Your task to perform on an android device: Play the last video I watched on Youtube Image 0: 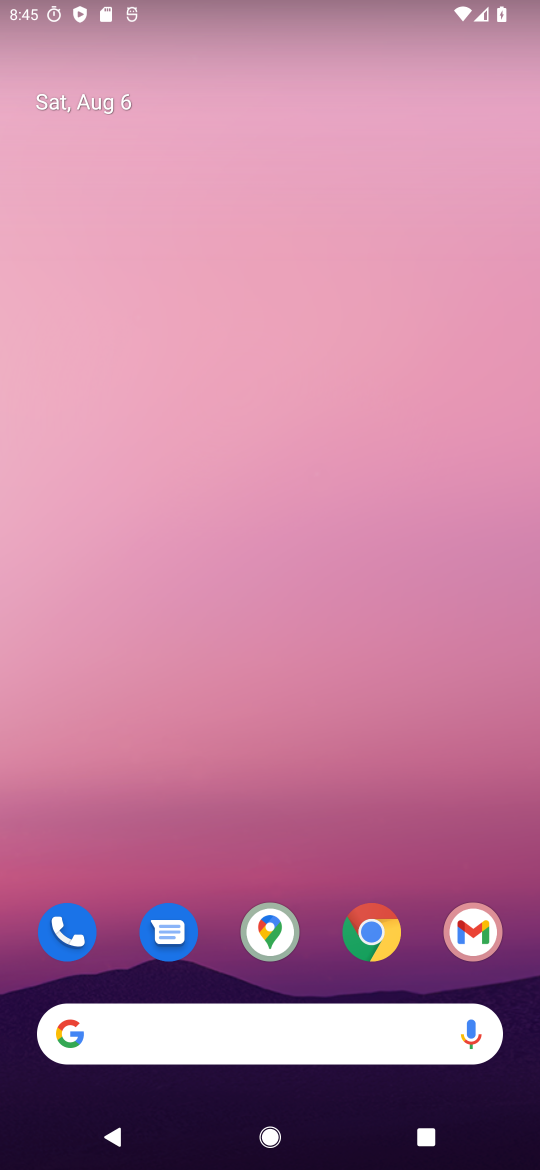
Step 0: drag from (262, 1002) to (506, 264)
Your task to perform on an android device: Play the last video I watched on Youtube Image 1: 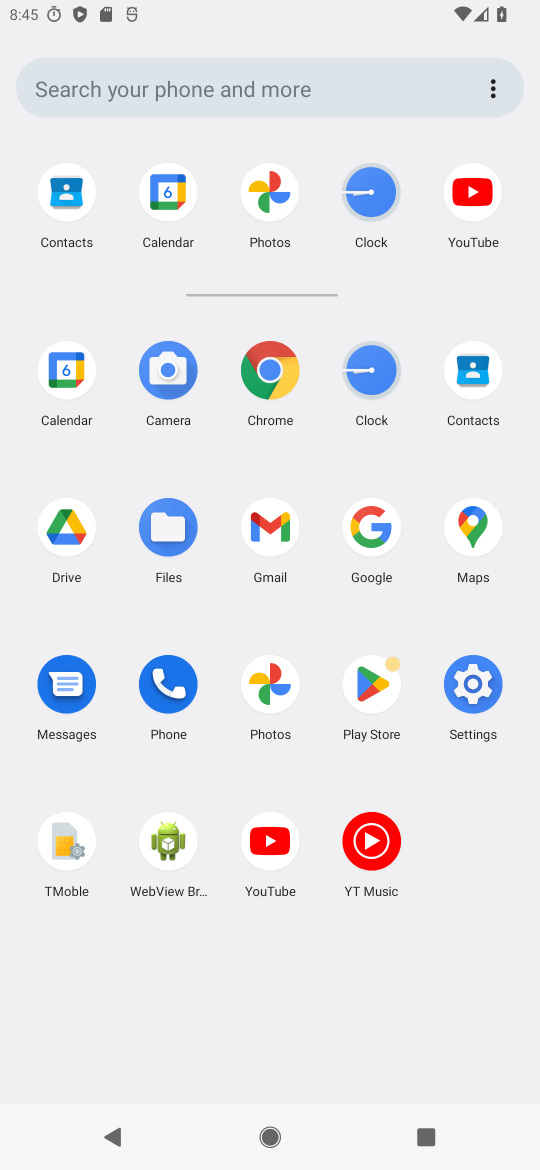
Step 1: click (274, 839)
Your task to perform on an android device: Play the last video I watched on Youtube Image 2: 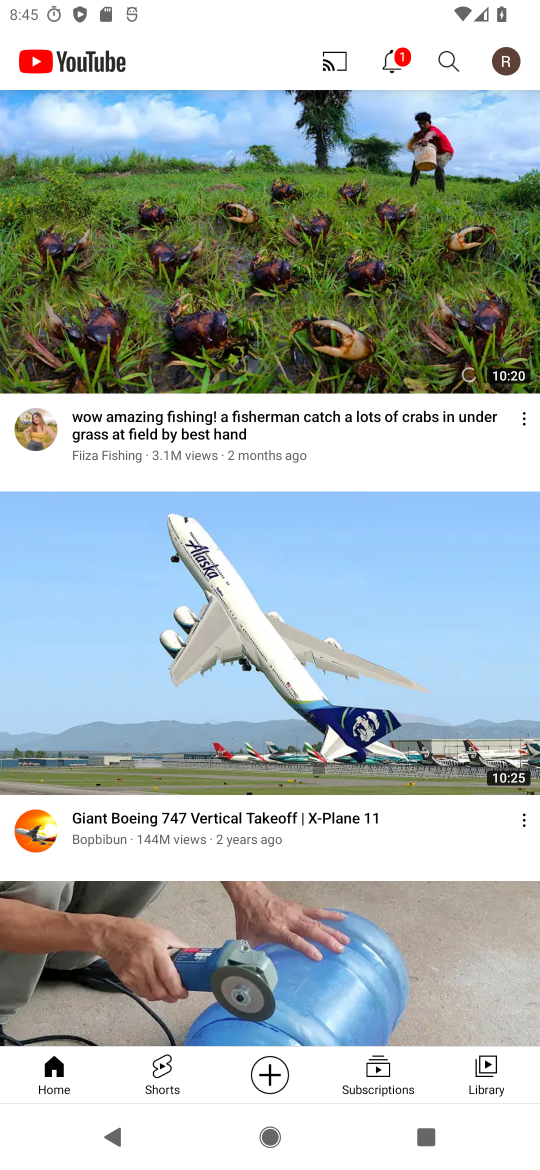
Step 2: click (483, 1075)
Your task to perform on an android device: Play the last video I watched on Youtube Image 3: 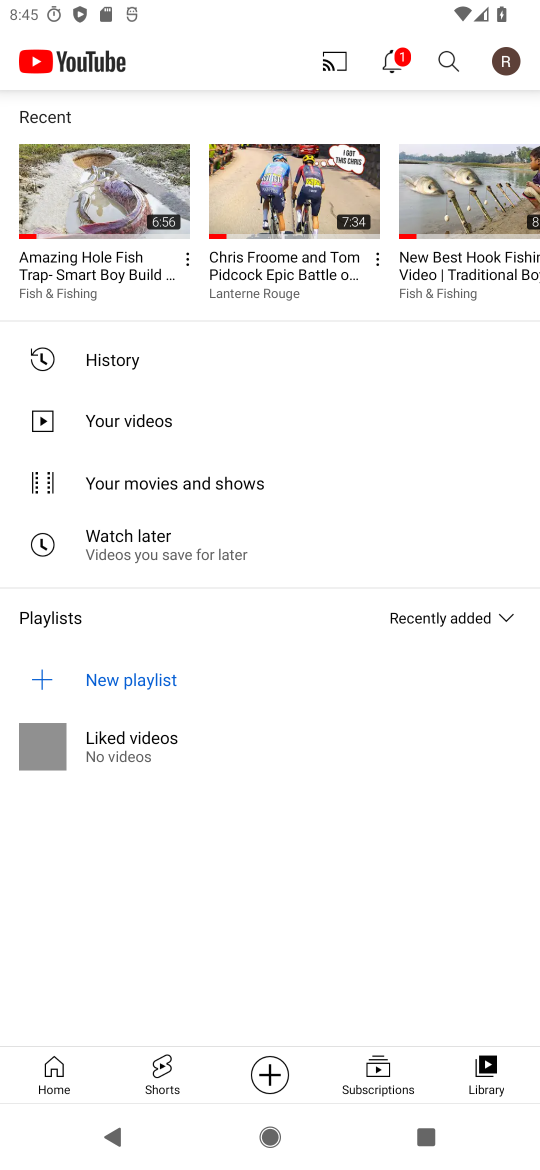
Step 3: click (121, 183)
Your task to perform on an android device: Play the last video I watched on Youtube Image 4: 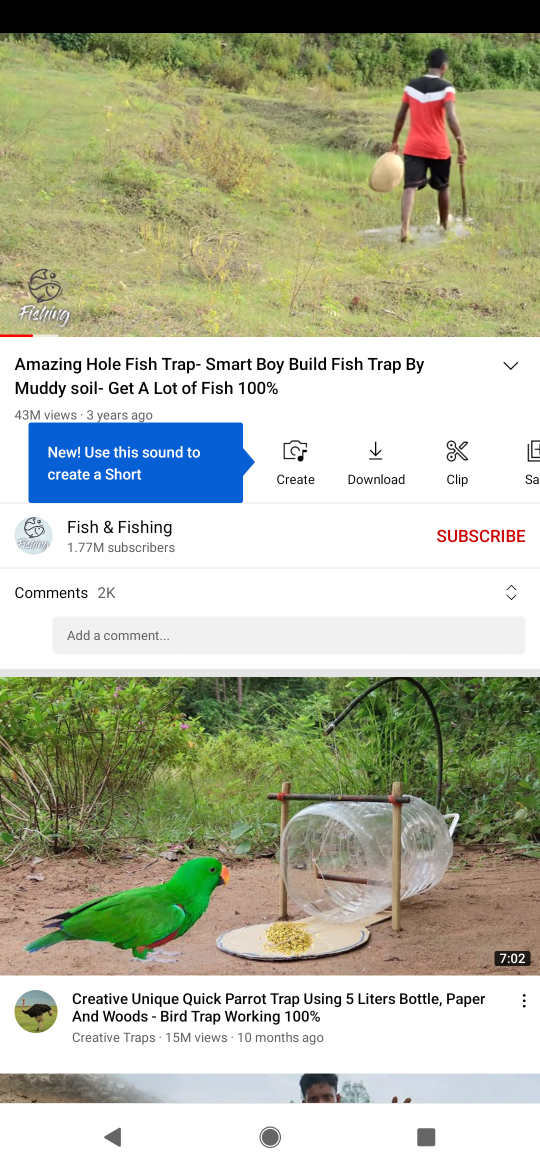
Step 4: click (292, 89)
Your task to perform on an android device: Play the last video I watched on Youtube Image 5: 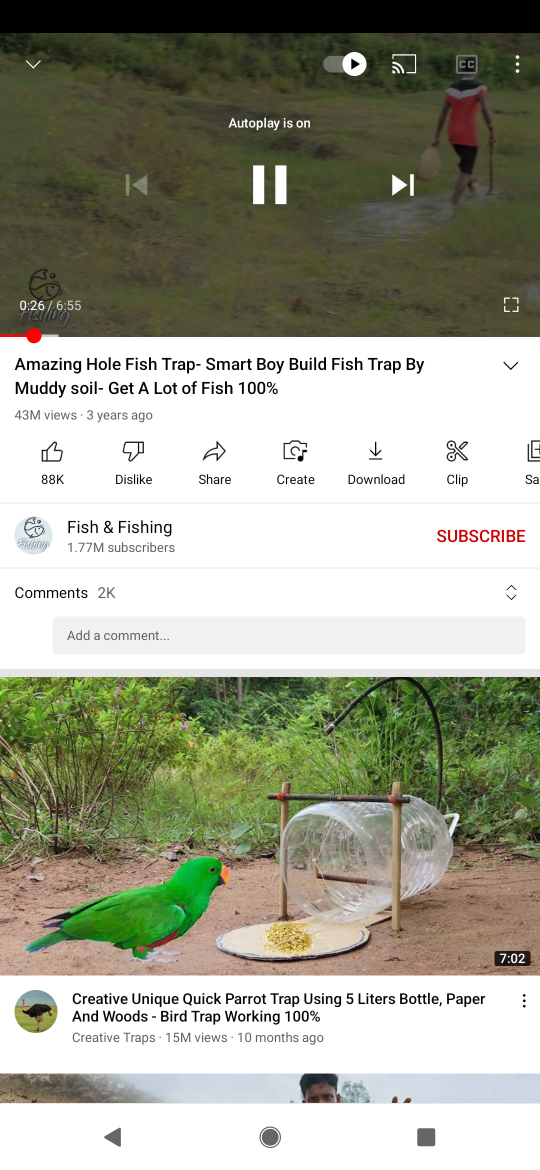
Step 5: click (255, 181)
Your task to perform on an android device: Play the last video I watched on Youtube Image 6: 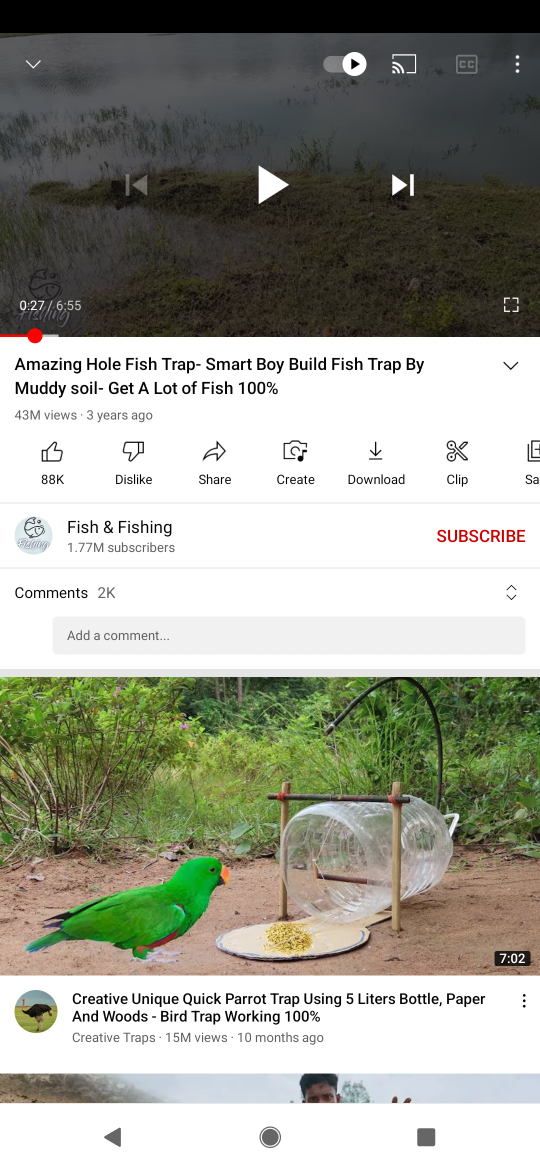
Step 6: task complete